Your task to perform on an android device: open a bookmark in the chrome app Image 0: 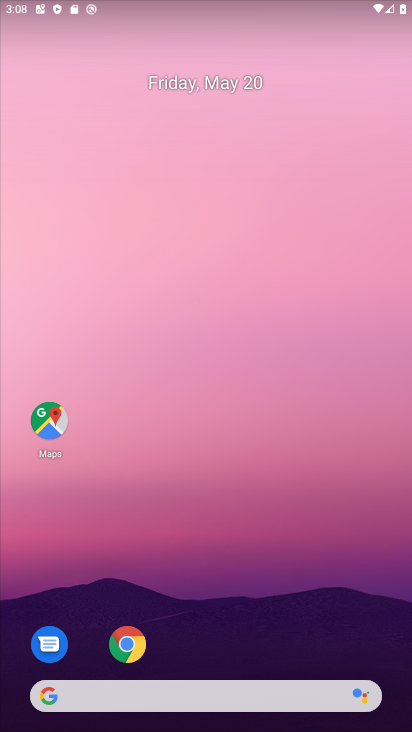
Step 0: click (275, 122)
Your task to perform on an android device: open a bookmark in the chrome app Image 1: 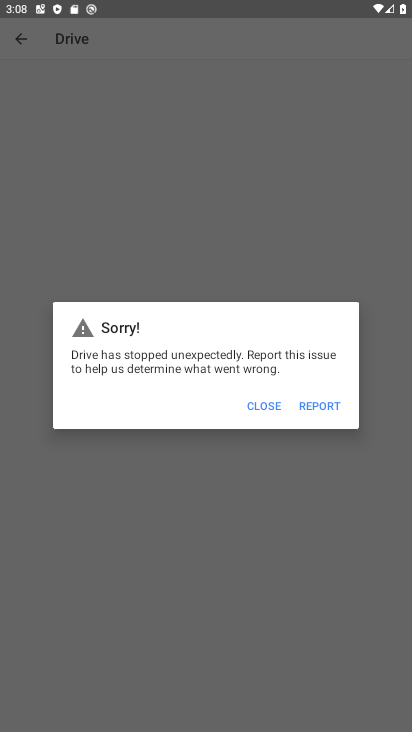
Step 1: press home button
Your task to perform on an android device: open a bookmark in the chrome app Image 2: 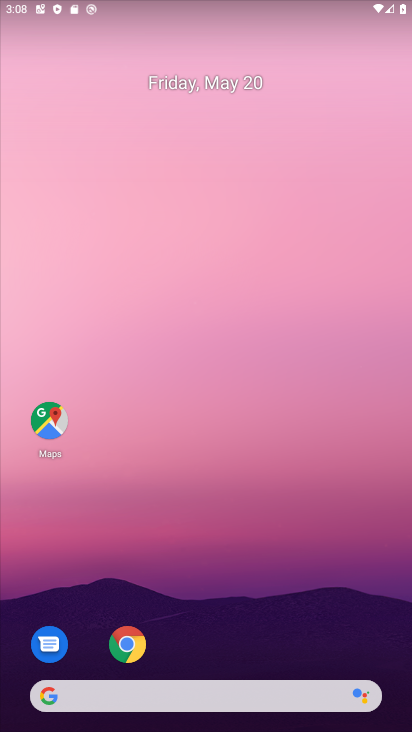
Step 2: click (132, 629)
Your task to perform on an android device: open a bookmark in the chrome app Image 3: 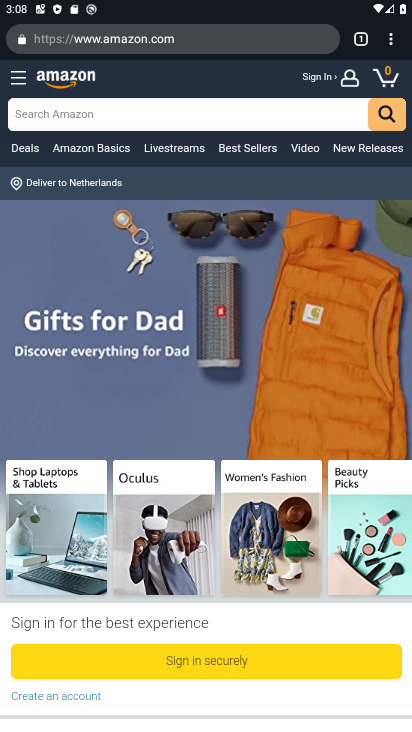
Step 3: click (396, 38)
Your task to perform on an android device: open a bookmark in the chrome app Image 4: 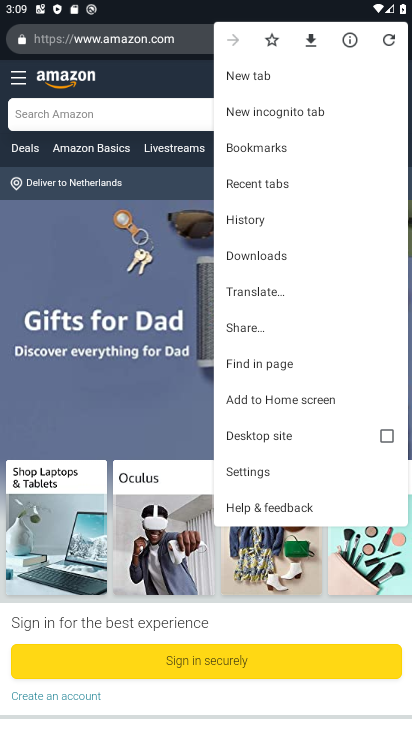
Step 4: click (288, 159)
Your task to perform on an android device: open a bookmark in the chrome app Image 5: 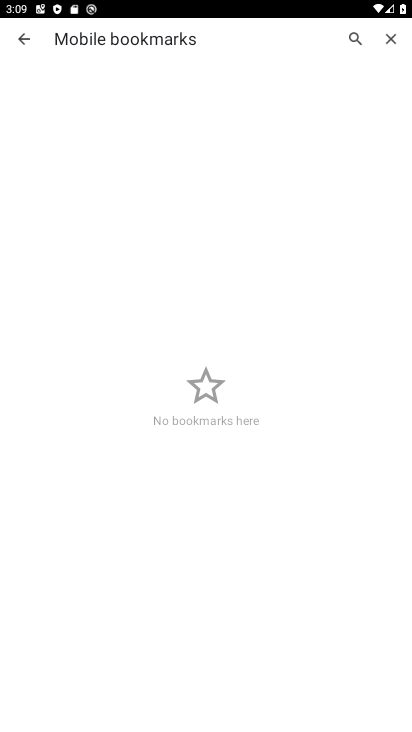
Step 5: task complete